Your task to perform on an android device: move an email to a new category in the gmail app Image 0: 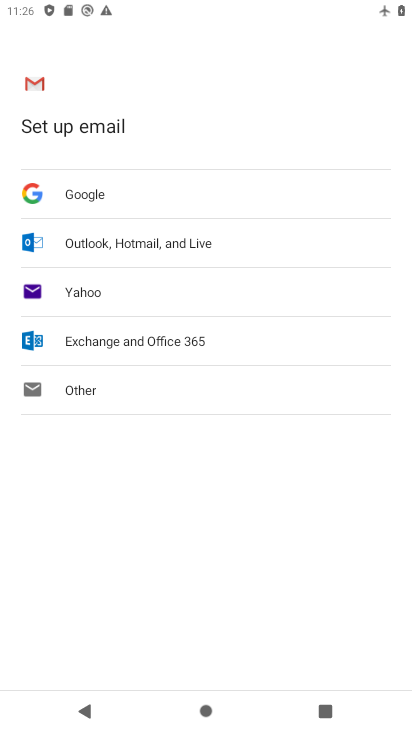
Step 0: press home button
Your task to perform on an android device: move an email to a new category in the gmail app Image 1: 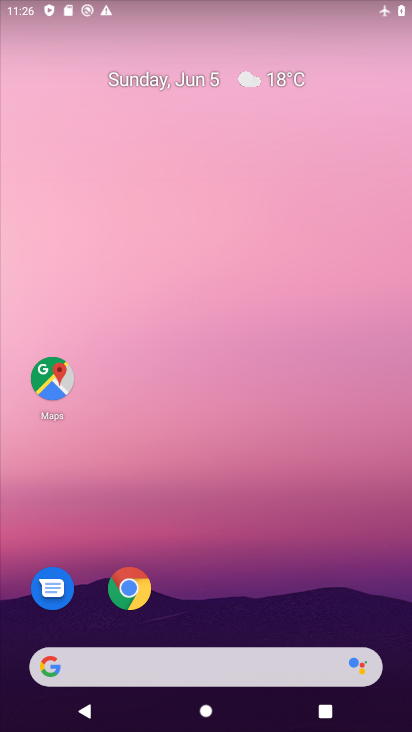
Step 1: drag from (211, 619) to (175, 105)
Your task to perform on an android device: move an email to a new category in the gmail app Image 2: 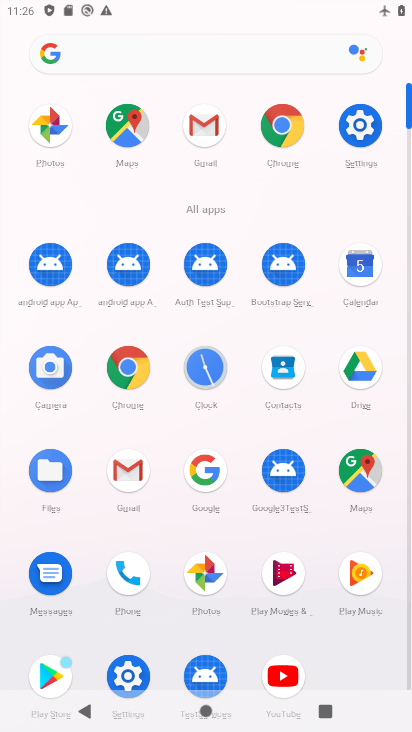
Step 2: click (216, 134)
Your task to perform on an android device: move an email to a new category in the gmail app Image 3: 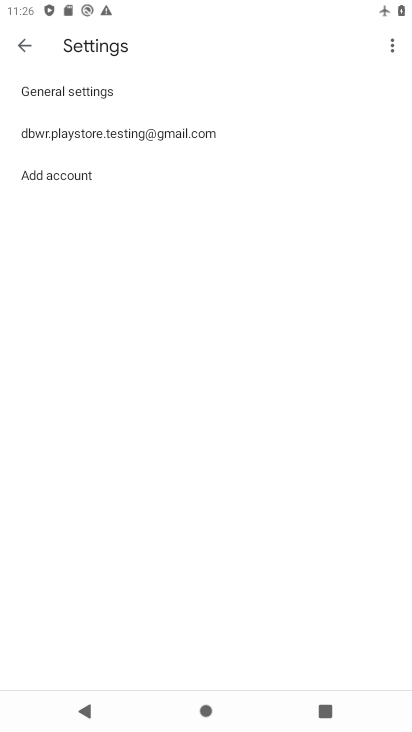
Step 3: click (26, 38)
Your task to perform on an android device: move an email to a new category in the gmail app Image 4: 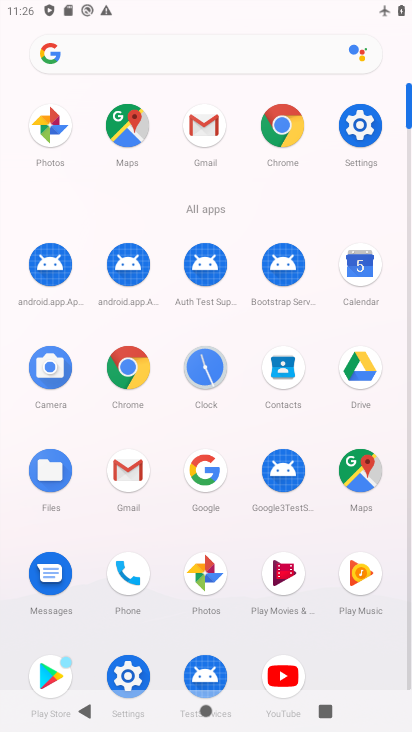
Step 4: click (188, 132)
Your task to perform on an android device: move an email to a new category in the gmail app Image 5: 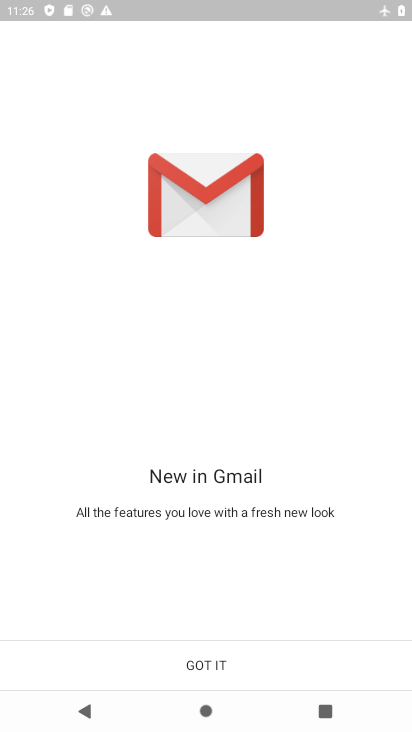
Step 5: click (222, 670)
Your task to perform on an android device: move an email to a new category in the gmail app Image 6: 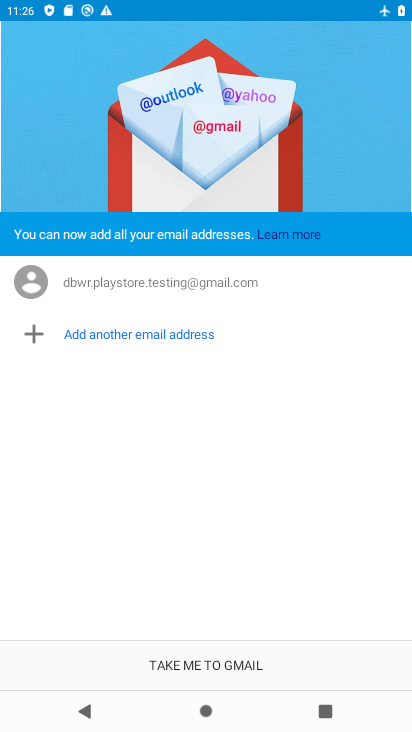
Step 6: click (241, 676)
Your task to perform on an android device: move an email to a new category in the gmail app Image 7: 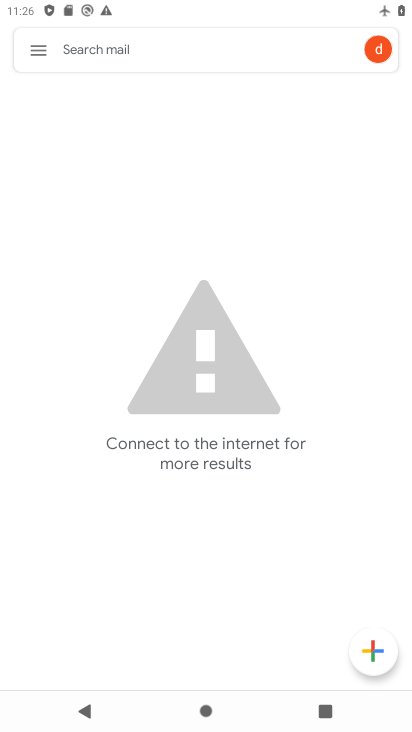
Step 7: task complete